Your task to perform on an android device: see tabs open on other devices in the chrome app Image 0: 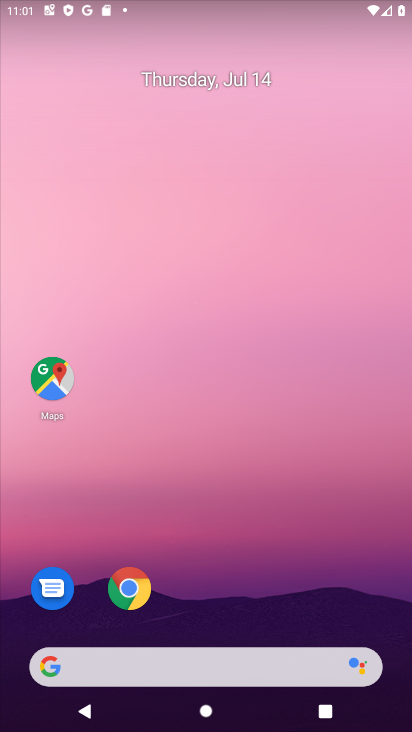
Step 0: click (119, 595)
Your task to perform on an android device: see tabs open on other devices in the chrome app Image 1: 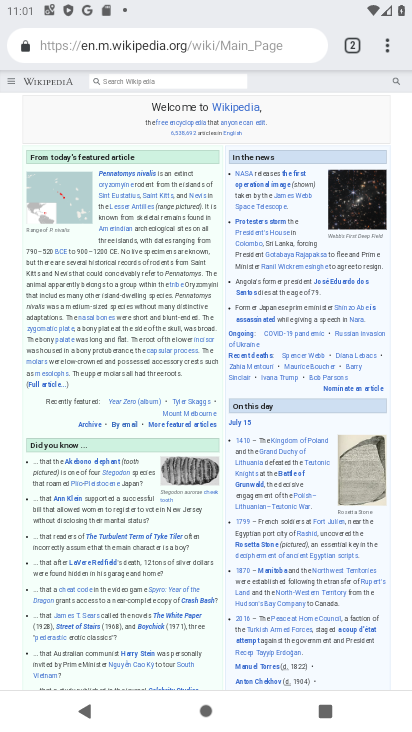
Step 1: task complete